Your task to perform on an android device: Open Google Maps Image 0: 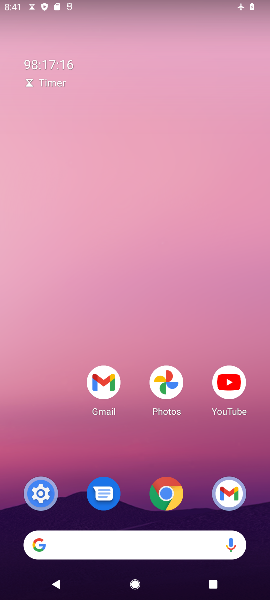
Step 0: drag from (130, 491) to (160, 171)
Your task to perform on an android device: Open Google Maps Image 1: 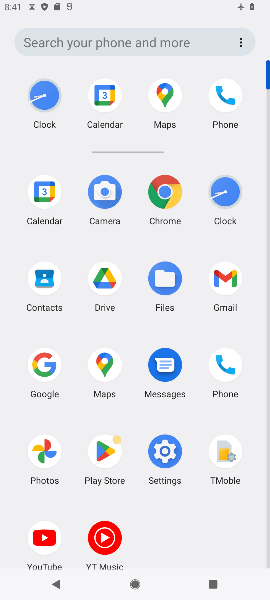
Step 1: click (101, 370)
Your task to perform on an android device: Open Google Maps Image 2: 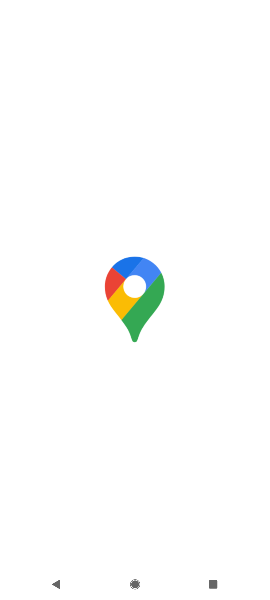
Step 2: task complete